Your task to perform on an android device: turn on airplane mode Image 0: 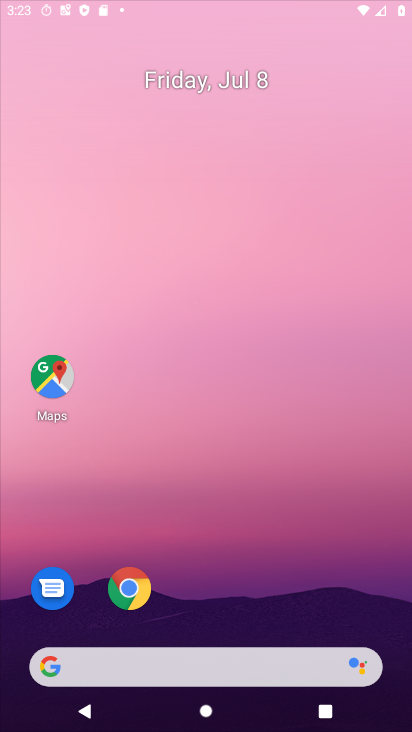
Step 0: press home button
Your task to perform on an android device: turn on airplane mode Image 1: 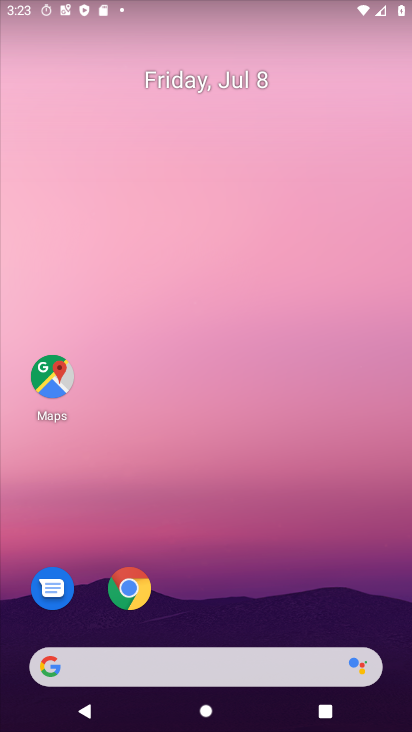
Step 1: drag from (217, 11) to (232, 415)
Your task to perform on an android device: turn on airplane mode Image 2: 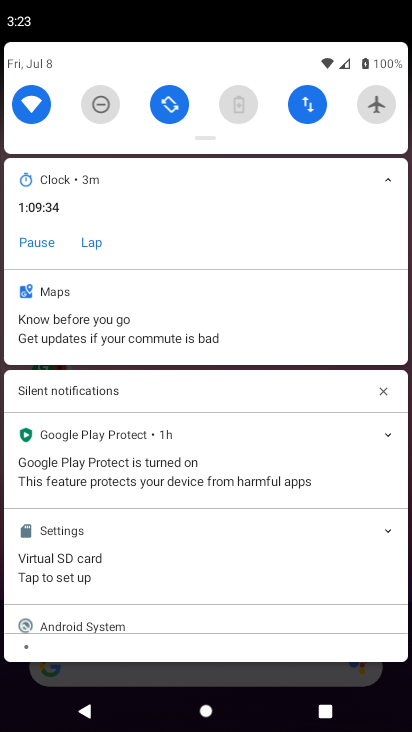
Step 2: click (377, 104)
Your task to perform on an android device: turn on airplane mode Image 3: 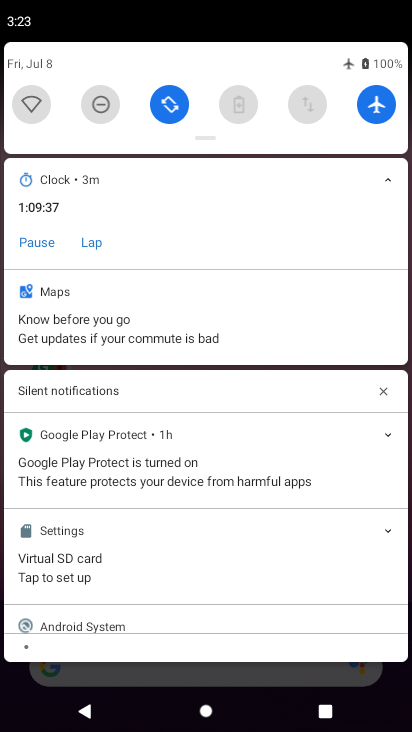
Step 3: task complete